Your task to perform on an android device: Open Youtube and go to the subscriptions tab Image 0: 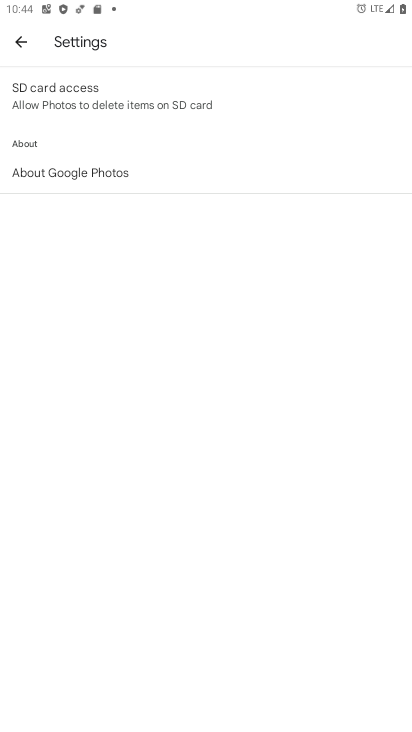
Step 0: press home button
Your task to perform on an android device: Open Youtube and go to the subscriptions tab Image 1: 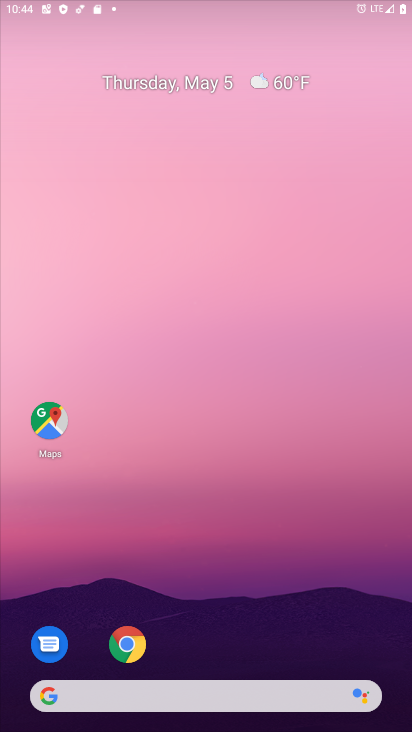
Step 1: drag from (361, 605) to (363, 60)
Your task to perform on an android device: Open Youtube and go to the subscriptions tab Image 2: 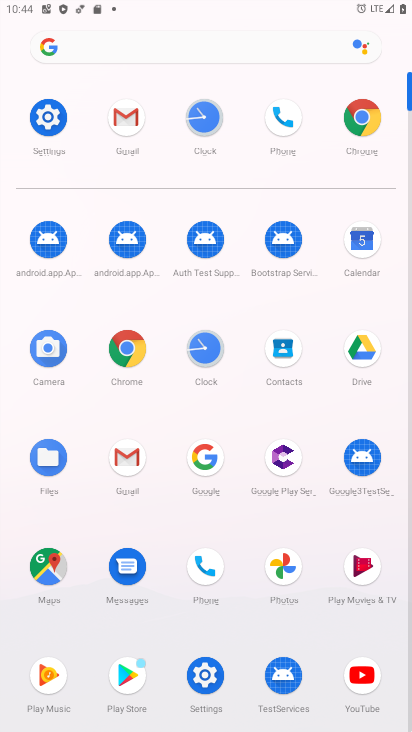
Step 2: drag from (337, 599) to (324, 373)
Your task to perform on an android device: Open Youtube and go to the subscriptions tab Image 3: 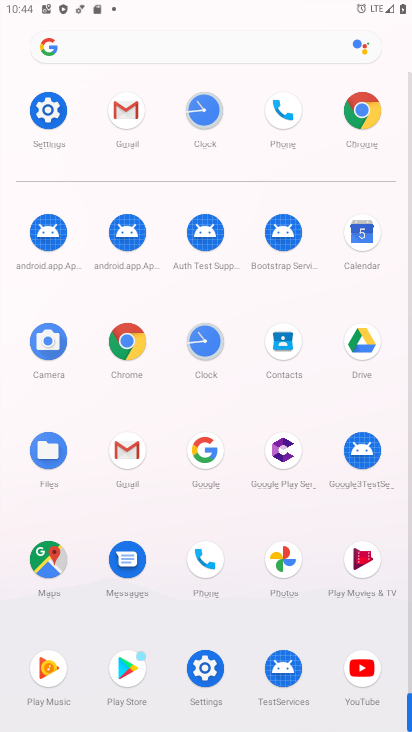
Step 3: click (366, 647)
Your task to perform on an android device: Open Youtube and go to the subscriptions tab Image 4: 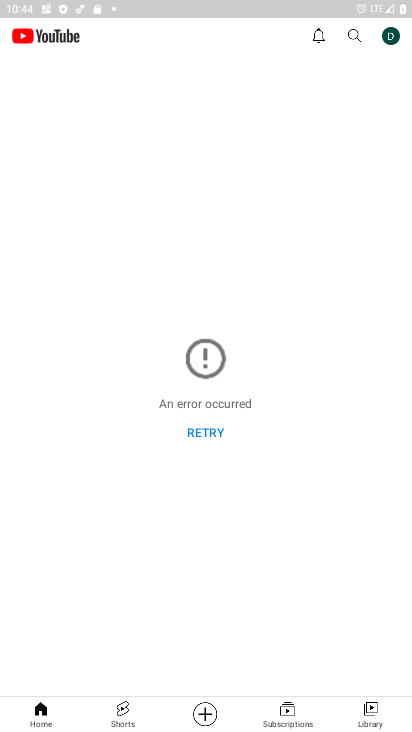
Step 4: click (287, 721)
Your task to perform on an android device: Open Youtube and go to the subscriptions tab Image 5: 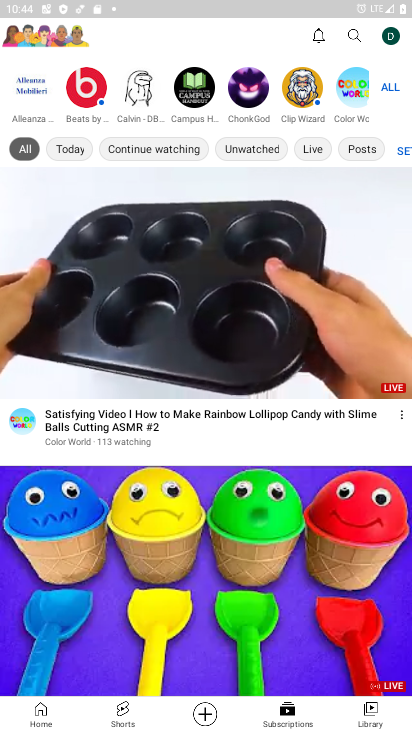
Step 5: task complete